Your task to perform on an android device: change keyboard looks Image 0: 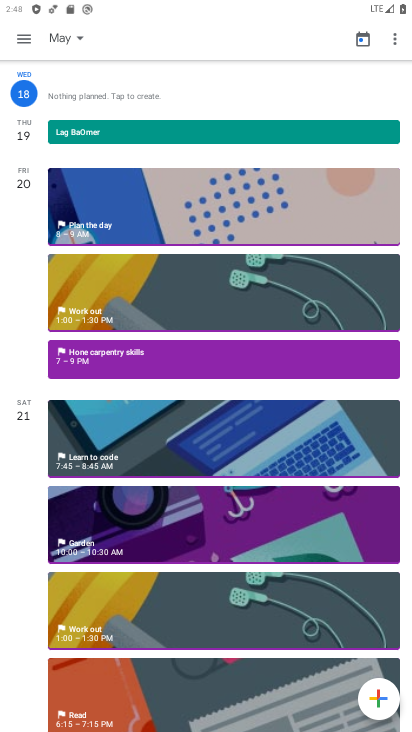
Step 0: press home button
Your task to perform on an android device: change keyboard looks Image 1: 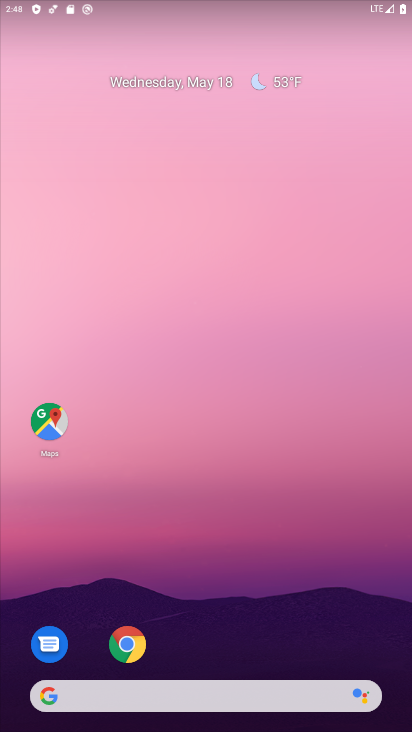
Step 1: drag from (191, 452) to (188, 243)
Your task to perform on an android device: change keyboard looks Image 2: 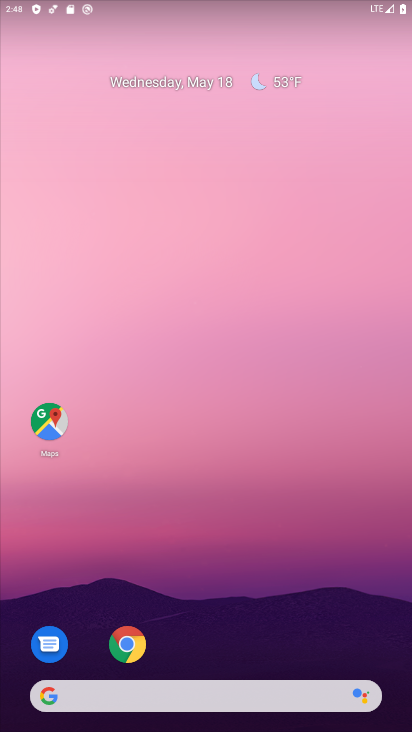
Step 2: drag from (178, 694) to (178, 226)
Your task to perform on an android device: change keyboard looks Image 3: 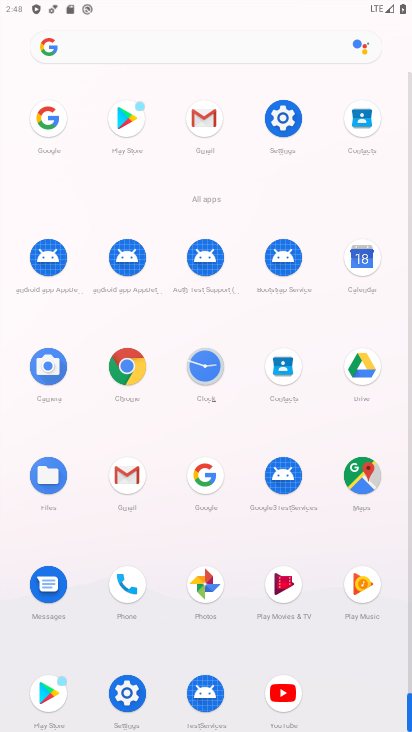
Step 3: click (275, 121)
Your task to perform on an android device: change keyboard looks Image 4: 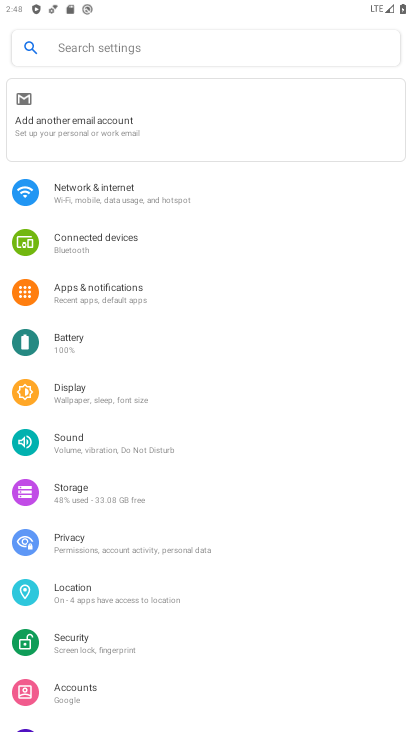
Step 4: drag from (79, 693) to (89, 275)
Your task to perform on an android device: change keyboard looks Image 5: 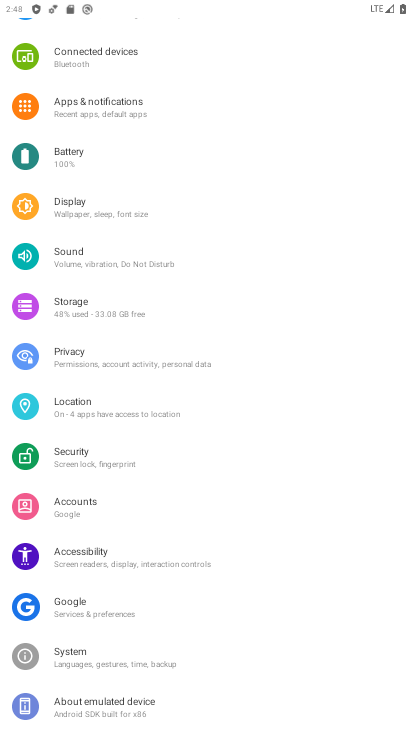
Step 5: click (73, 663)
Your task to perform on an android device: change keyboard looks Image 6: 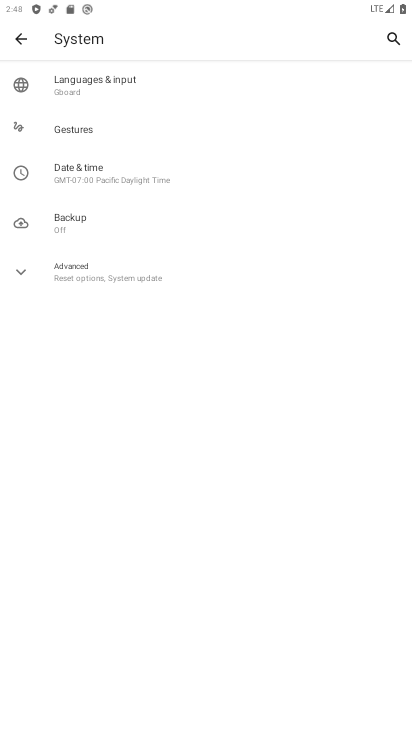
Step 6: click (82, 84)
Your task to perform on an android device: change keyboard looks Image 7: 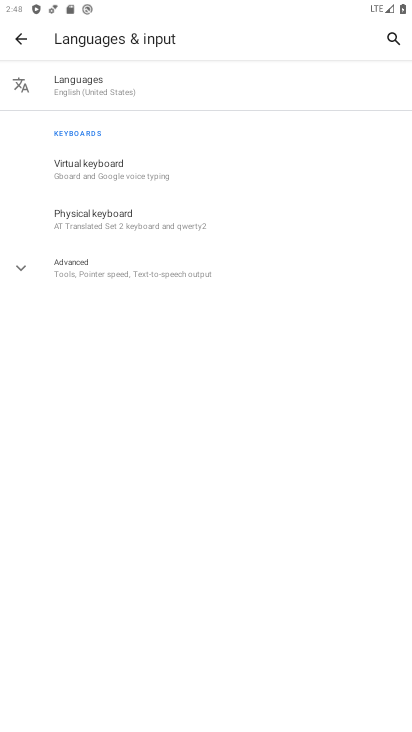
Step 7: click (69, 172)
Your task to perform on an android device: change keyboard looks Image 8: 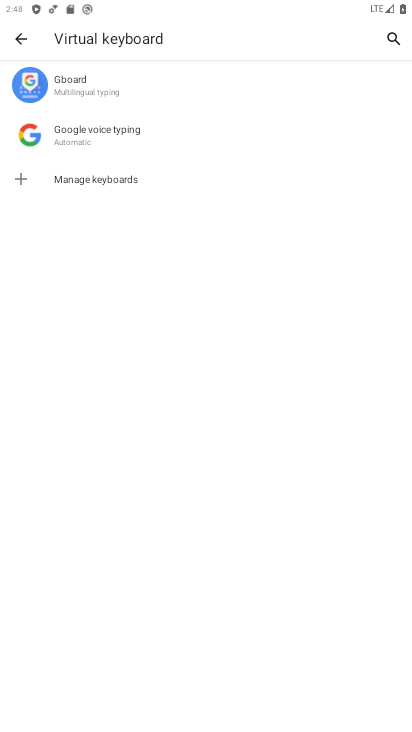
Step 8: click (84, 74)
Your task to perform on an android device: change keyboard looks Image 9: 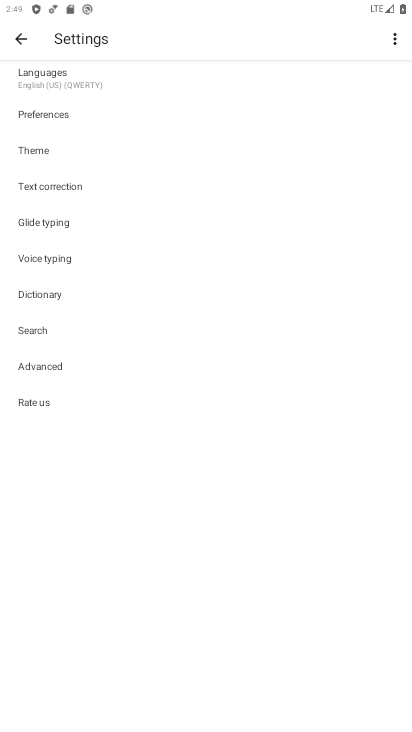
Step 9: click (41, 147)
Your task to perform on an android device: change keyboard looks Image 10: 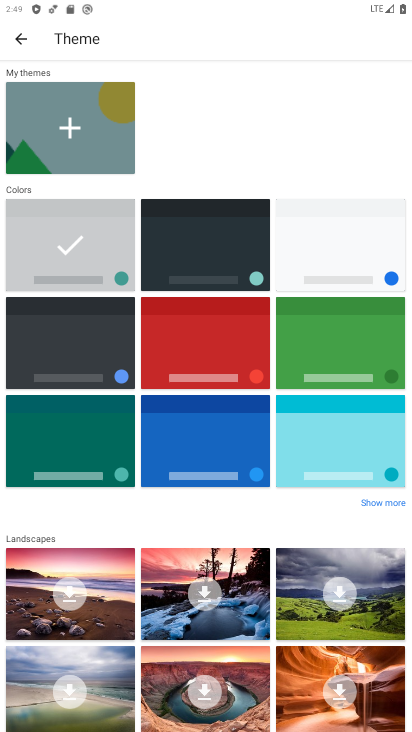
Step 10: click (214, 251)
Your task to perform on an android device: change keyboard looks Image 11: 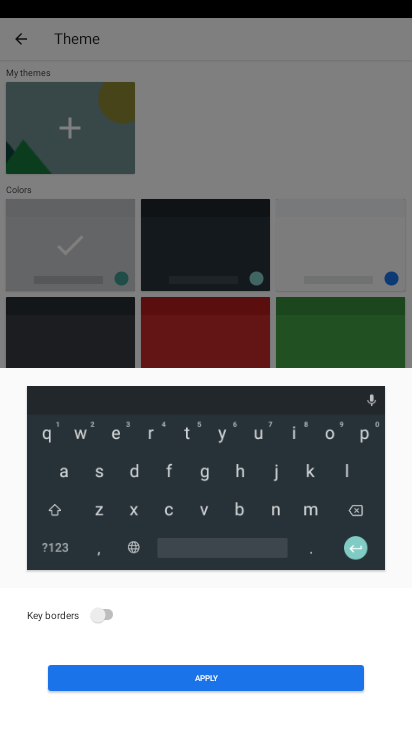
Step 11: click (226, 683)
Your task to perform on an android device: change keyboard looks Image 12: 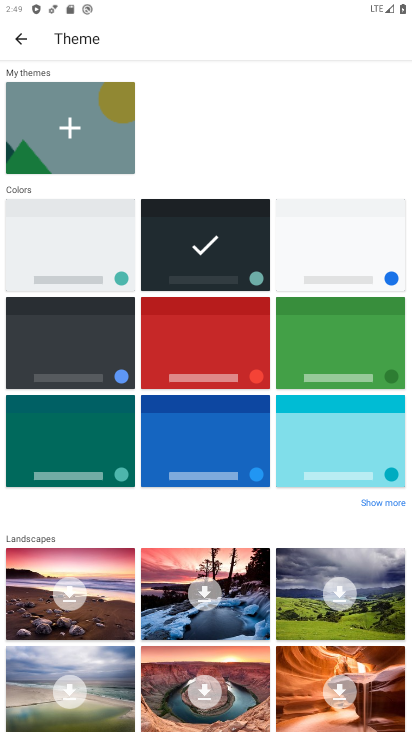
Step 12: task complete